Your task to perform on an android device: Go to Amazon Image 0: 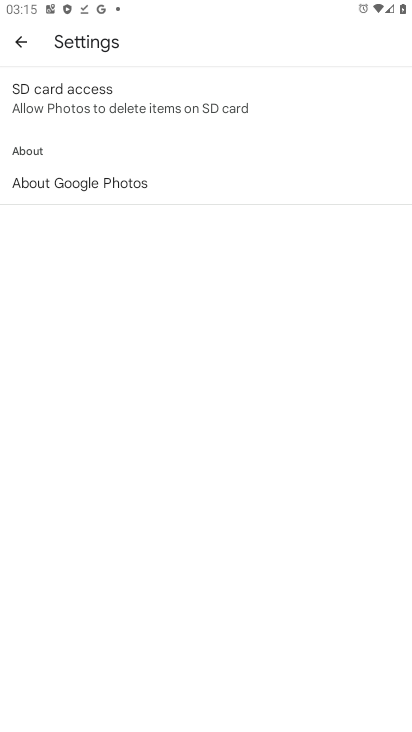
Step 0: press home button
Your task to perform on an android device: Go to Amazon Image 1: 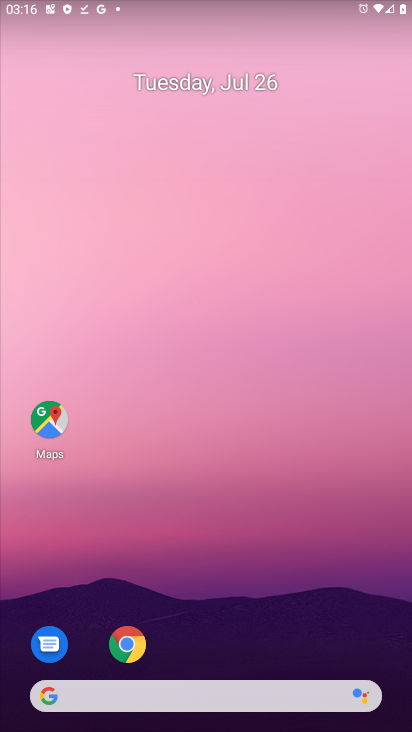
Step 1: click (138, 648)
Your task to perform on an android device: Go to Amazon Image 2: 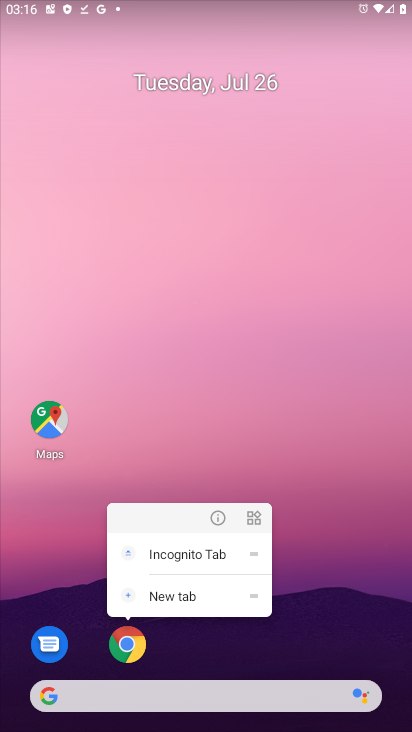
Step 2: click (137, 648)
Your task to perform on an android device: Go to Amazon Image 3: 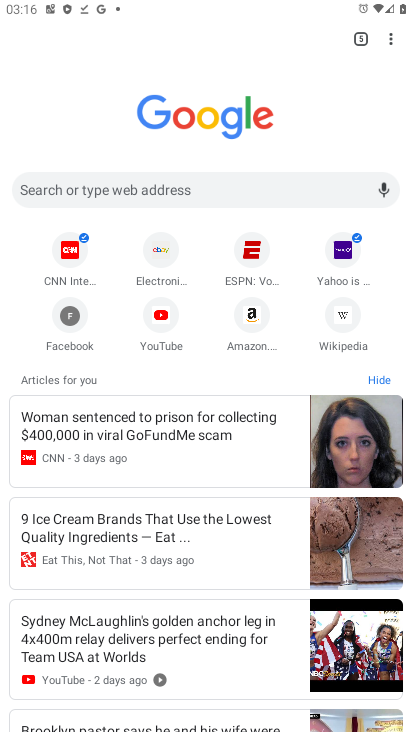
Step 3: click (240, 324)
Your task to perform on an android device: Go to Amazon Image 4: 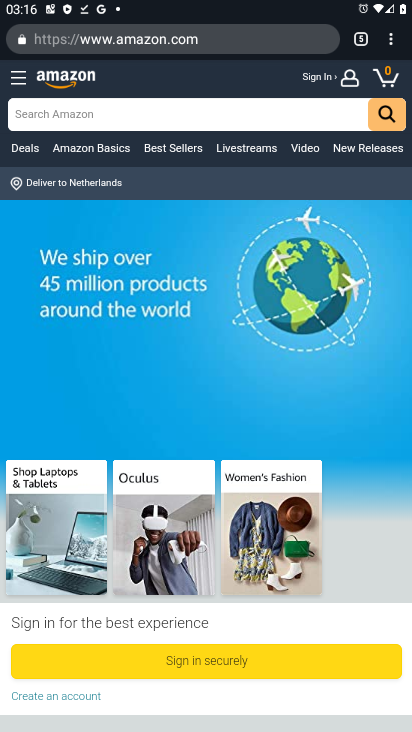
Step 4: task complete